Your task to perform on an android device: Open the Play Movies app and select the watchlist tab. Image 0: 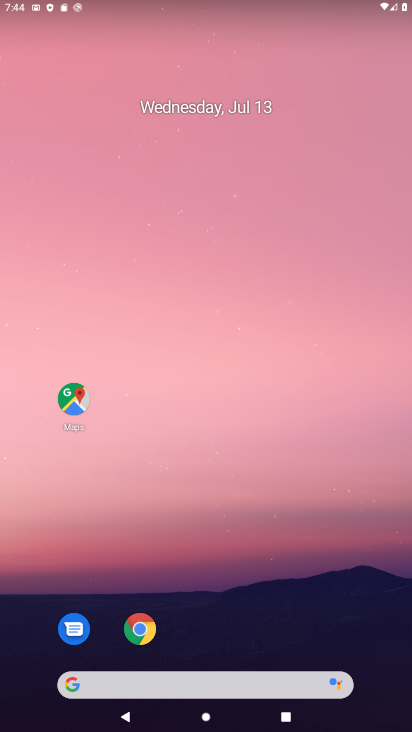
Step 0: drag from (259, 637) to (349, 103)
Your task to perform on an android device: Open the Play Movies app and select the watchlist tab. Image 1: 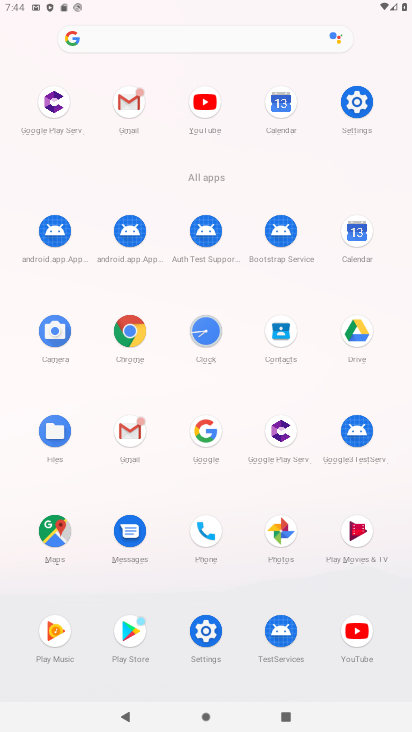
Step 1: click (354, 531)
Your task to perform on an android device: Open the Play Movies app and select the watchlist tab. Image 2: 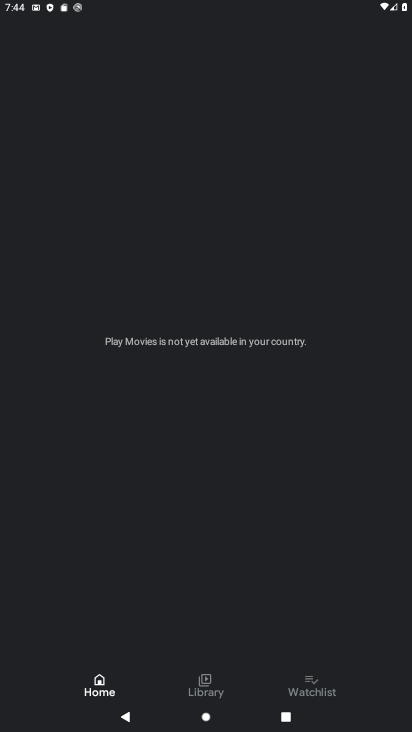
Step 2: click (303, 689)
Your task to perform on an android device: Open the Play Movies app and select the watchlist tab. Image 3: 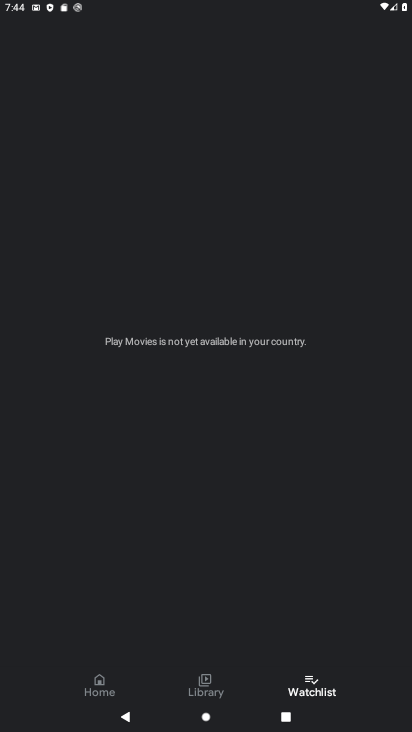
Step 3: task complete